Your task to perform on an android device: turn off location Image 0: 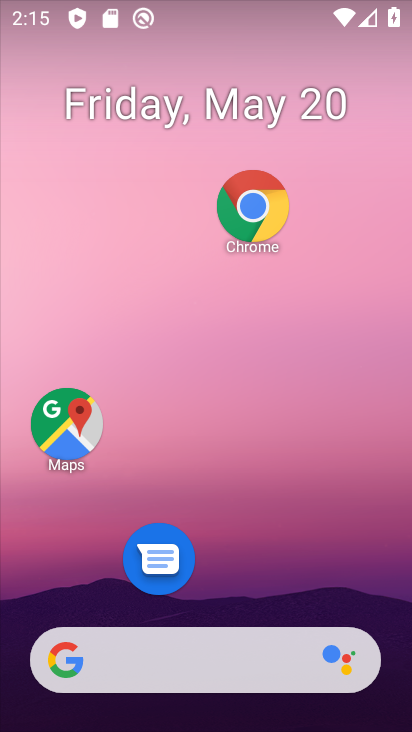
Step 0: drag from (215, 618) to (164, 40)
Your task to perform on an android device: turn off location Image 1: 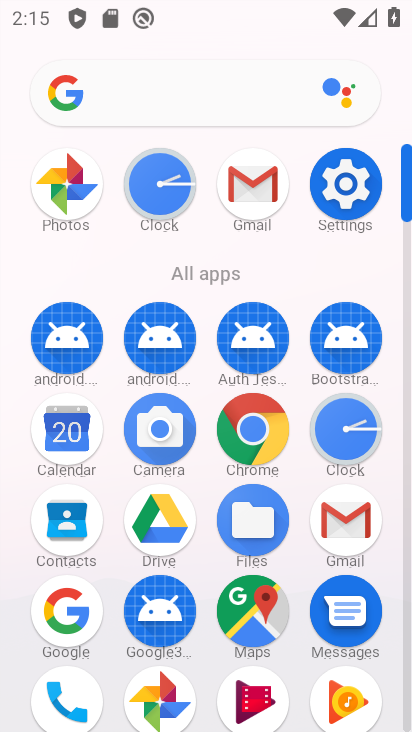
Step 1: click (341, 209)
Your task to perform on an android device: turn off location Image 2: 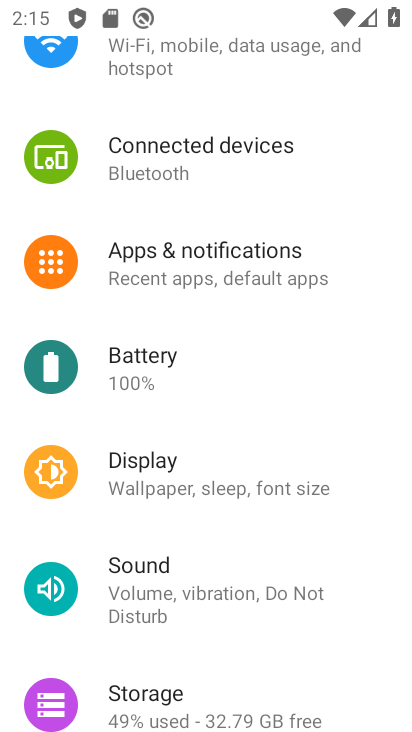
Step 2: drag from (275, 556) to (283, 114)
Your task to perform on an android device: turn off location Image 3: 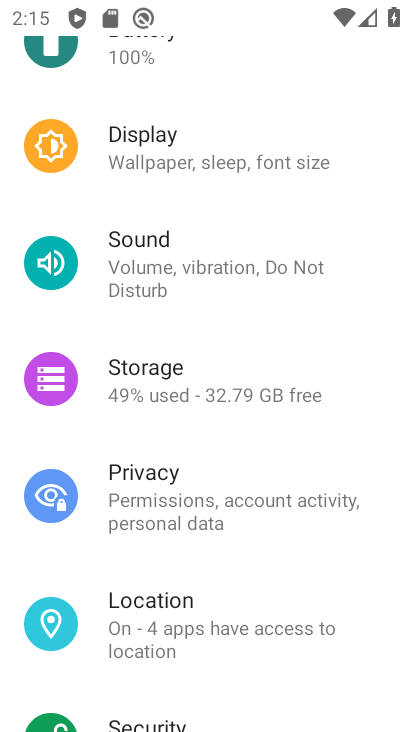
Step 3: click (133, 587)
Your task to perform on an android device: turn off location Image 4: 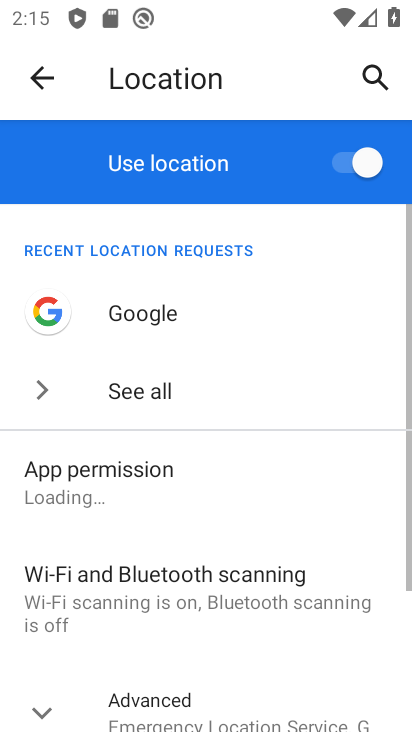
Step 4: click (357, 152)
Your task to perform on an android device: turn off location Image 5: 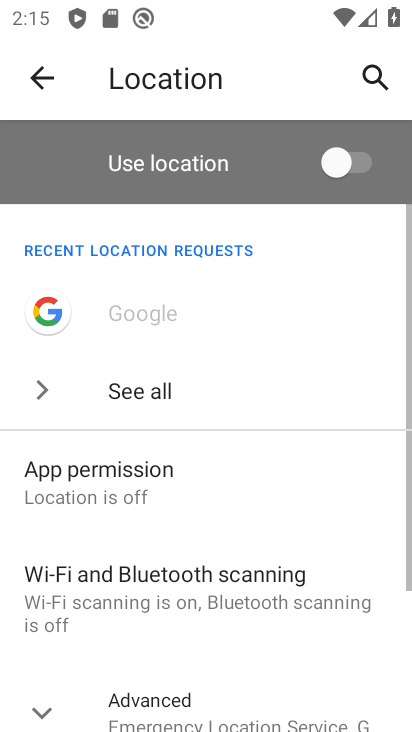
Step 5: task complete